Your task to perform on an android device: turn off translation in the chrome app Image 0: 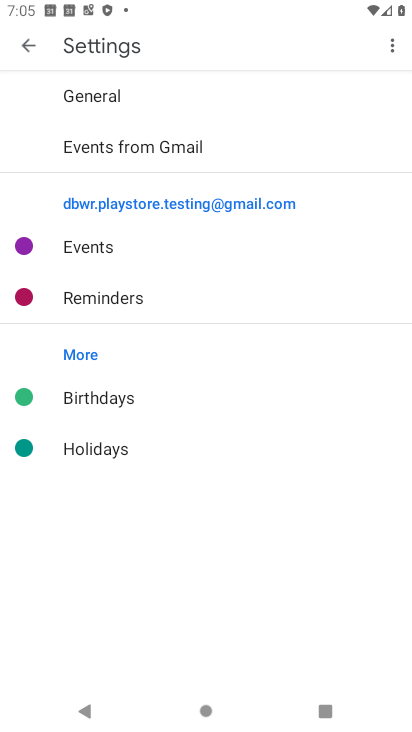
Step 0: press home button
Your task to perform on an android device: turn off translation in the chrome app Image 1: 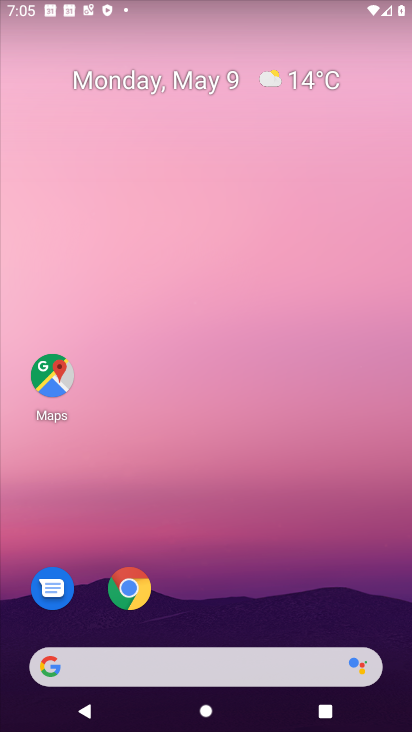
Step 1: drag from (321, 625) to (245, 37)
Your task to perform on an android device: turn off translation in the chrome app Image 2: 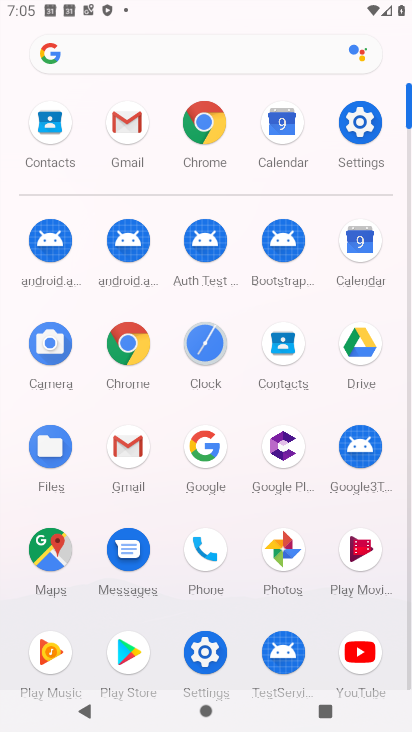
Step 2: click (208, 123)
Your task to perform on an android device: turn off translation in the chrome app Image 3: 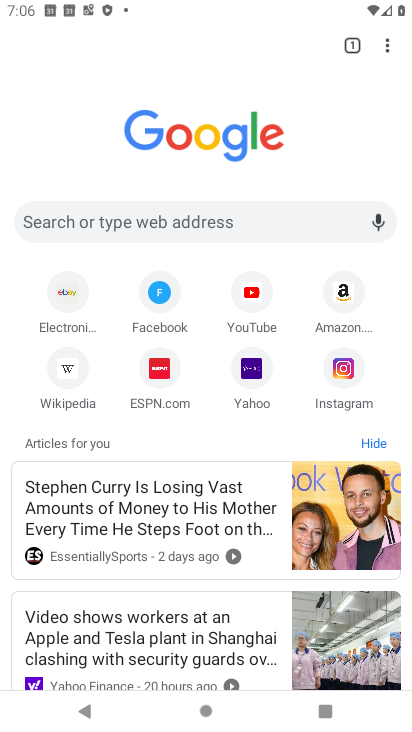
Step 3: click (386, 47)
Your task to perform on an android device: turn off translation in the chrome app Image 4: 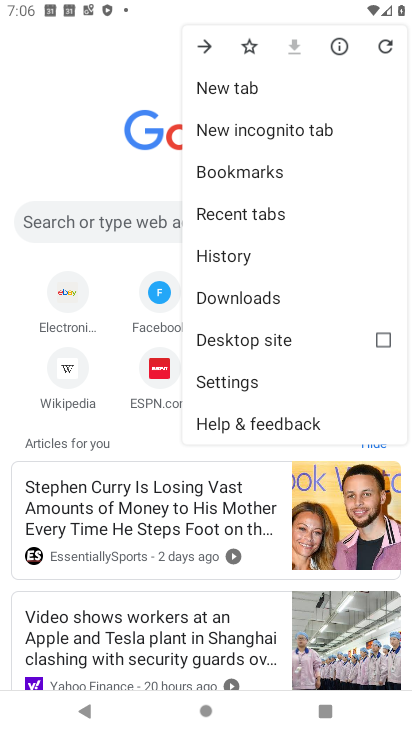
Step 4: click (250, 381)
Your task to perform on an android device: turn off translation in the chrome app Image 5: 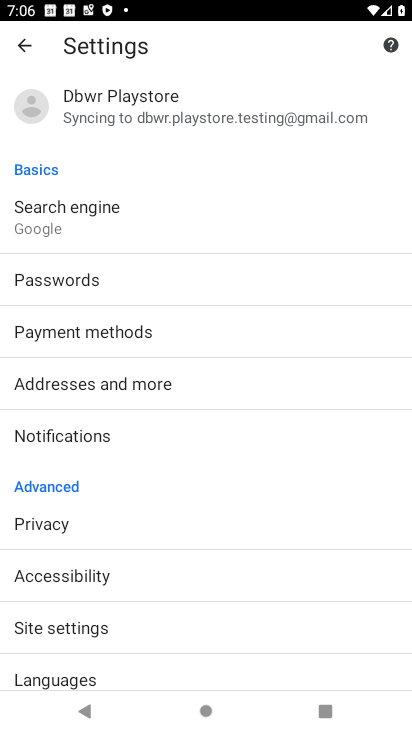
Step 5: click (148, 674)
Your task to perform on an android device: turn off translation in the chrome app Image 6: 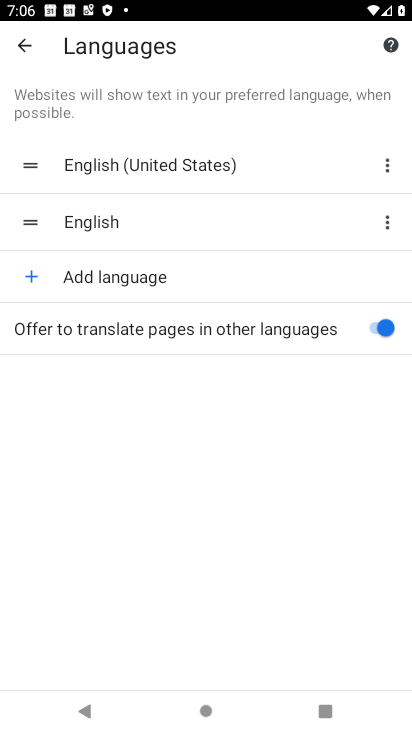
Step 6: click (339, 342)
Your task to perform on an android device: turn off translation in the chrome app Image 7: 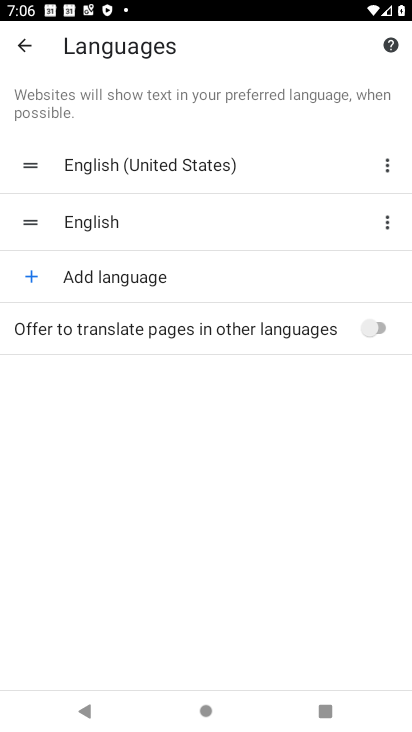
Step 7: task complete